Your task to perform on an android device: refresh tabs in the chrome app Image 0: 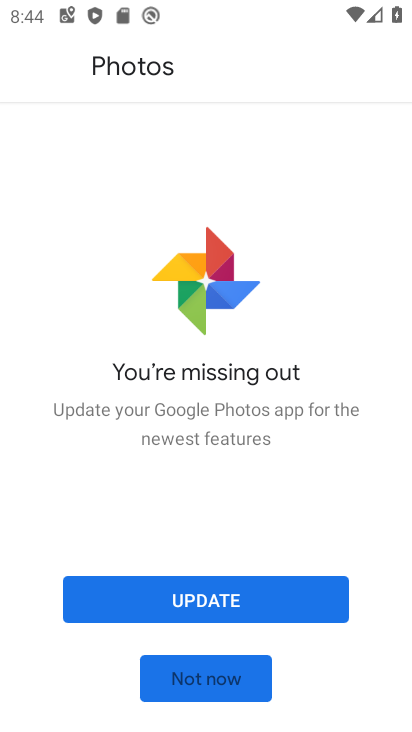
Step 0: press home button
Your task to perform on an android device: refresh tabs in the chrome app Image 1: 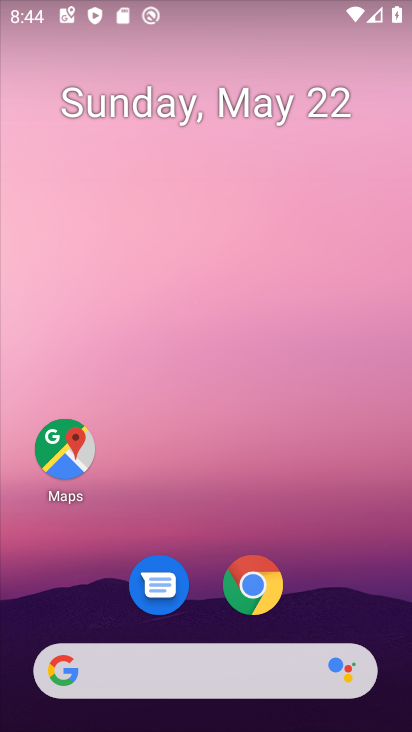
Step 1: click (243, 591)
Your task to perform on an android device: refresh tabs in the chrome app Image 2: 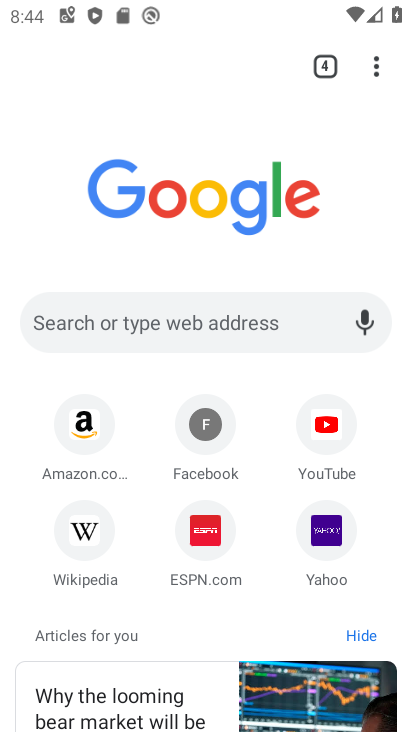
Step 2: click (371, 57)
Your task to perform on an android device: refresh tabs in the chrome app Image 3: 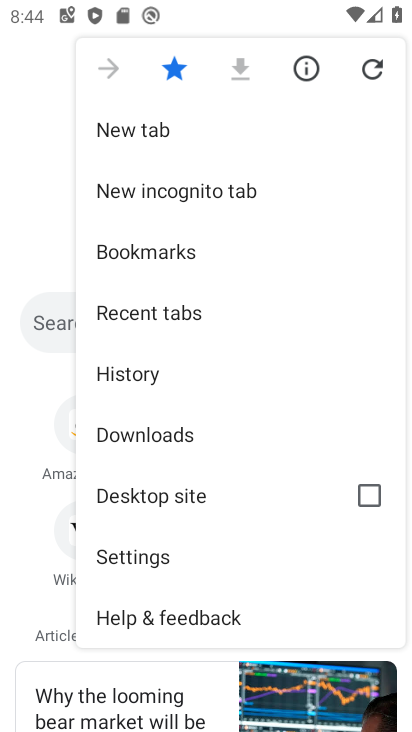
Step 3: click (371, 57)
Your task to perform on an android device: refresh tabs in the chrome app Image 4: 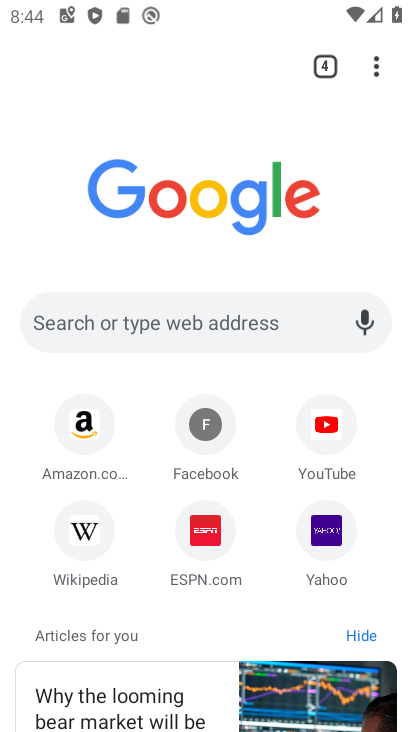
Step 4: task complete